Your task to perform on an android device: empty trash in the gmail app Image 0: 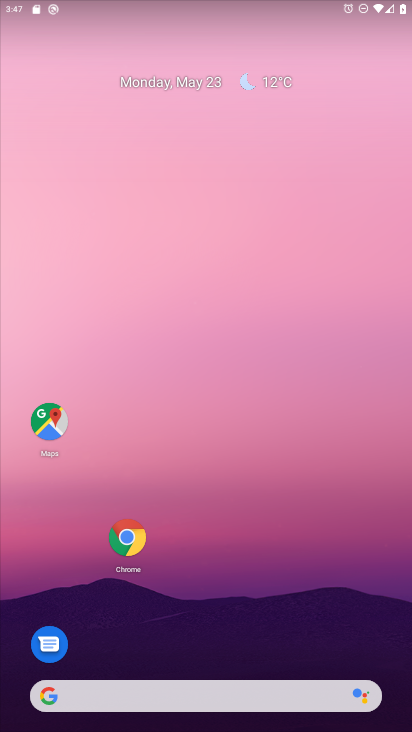
Step 0: drag from (207, 603) to (313, 197)
Your task to perform on an android device: empty trash in the gmail app Image 1: 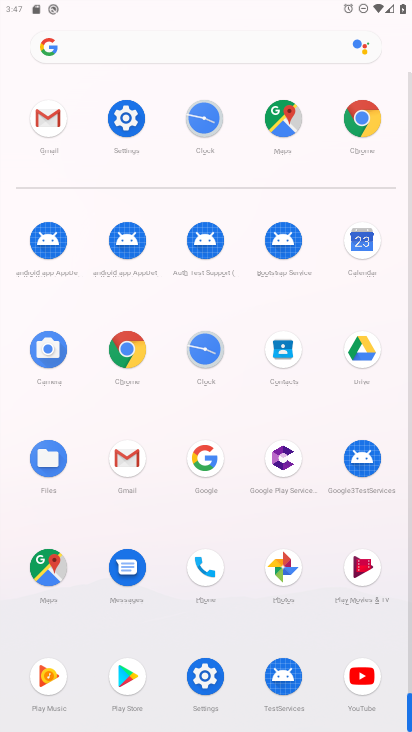
Step 1: click (44, 129)
Your task to perform on an android device: empty trash in the gmail app Image 2: 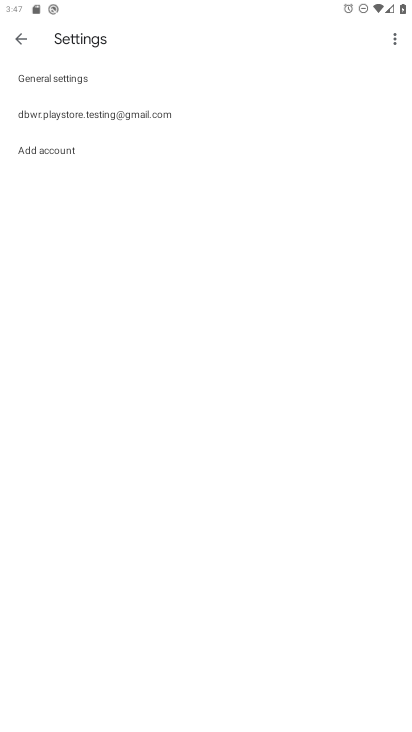
Step 2: click (31, 47)
Your task to perform on an android device: empty trash in the gmail app Image 3: 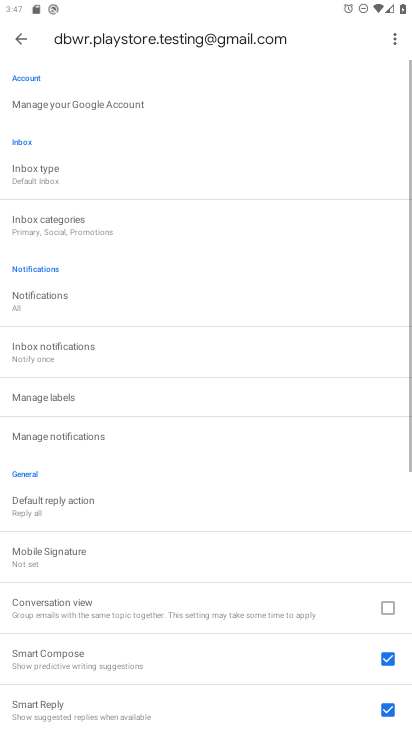
Step 3: click (33, 47)
Your task to perform on an android device: empty trash in the gmail app Image 4: 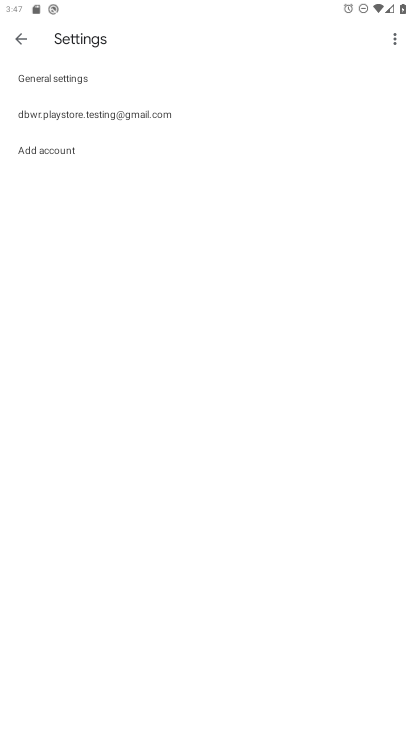
Step 4: click (33, 47)
Your task to perform on an android device: empty trash in the gmail app Image 5: 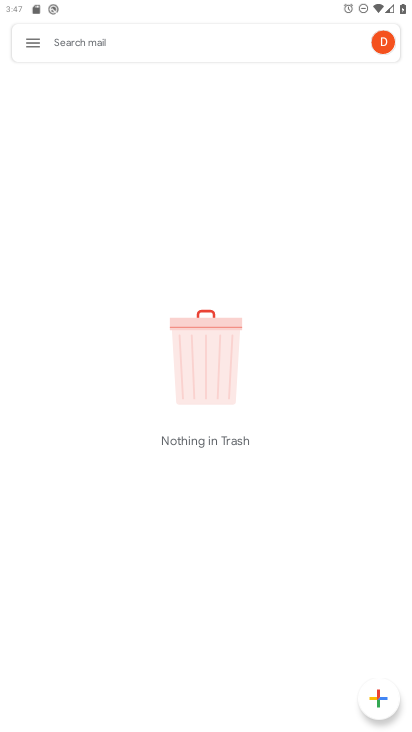
Step 5: task complete